Your task to perform on an android device: turn off priority inbox in the gmail app Image 0: 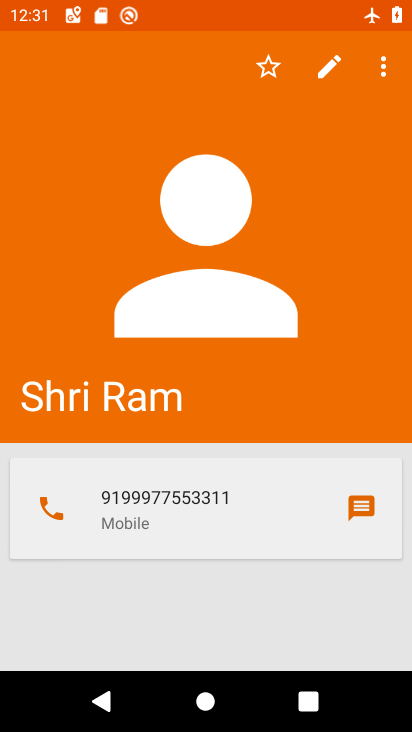
Step 0: press home button
Your task to perform on an android device: turn off priority inbox in the gmail app Image 1: 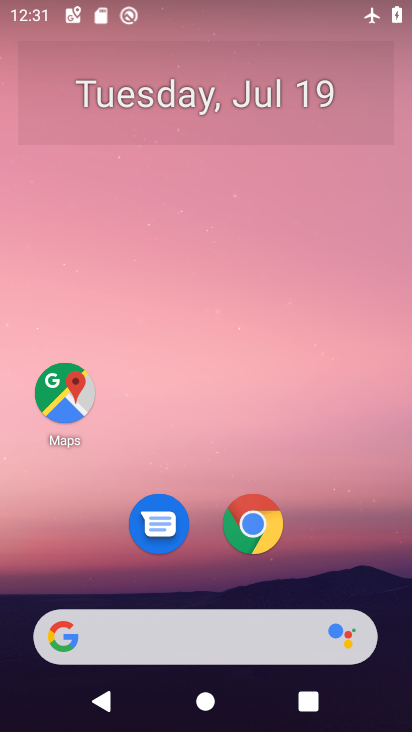
Step 1: drag from (319, 522) to (318, 15)
Your task to perform on an android device: turn off priority inbox in the gmail app Image 2: 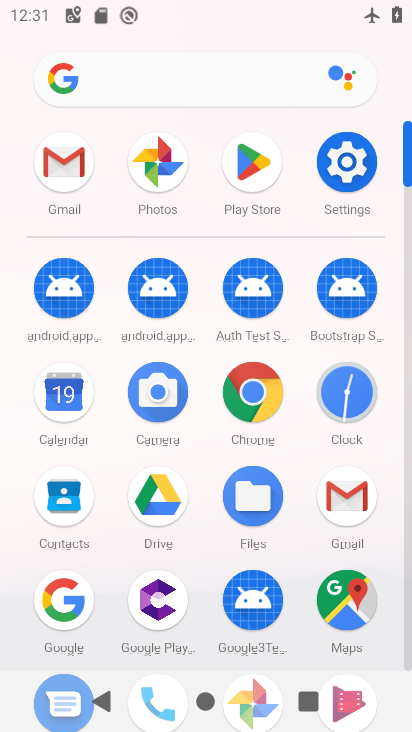
Step 2: click (75, 165)
Your task to perform on an android device: turn off priority inbox in the gmail app Image 3: 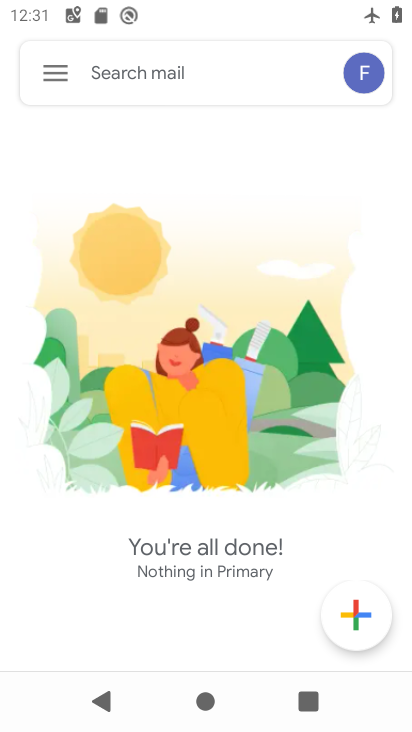
Step 3: click (59, 75)
Your task to perform on an android device: turn off priority inbox in the gmail app Image 4: 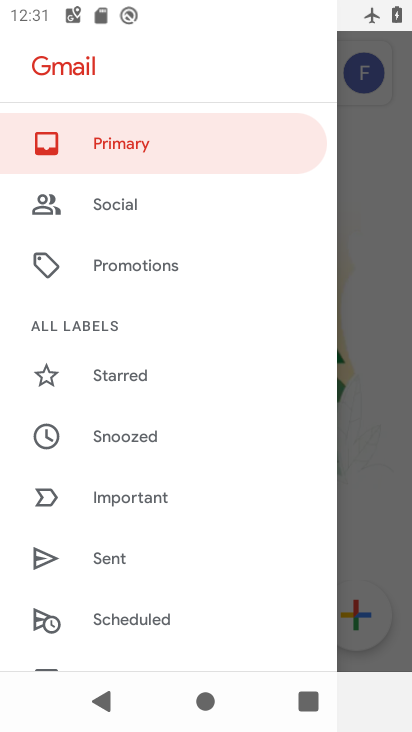
Step 4: drag from (149, 531) to (201, 16)
Your task to perform on an android device: turn off priority inbox in the gmail app Image 5: 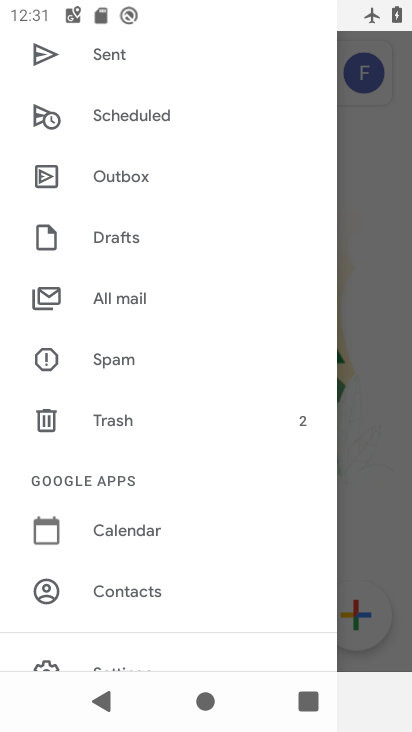
Step 5: drag from (211, 444) to (213, 139)
Your task to perform on an android device: turn off priority inbox in the gmail app Image 6: 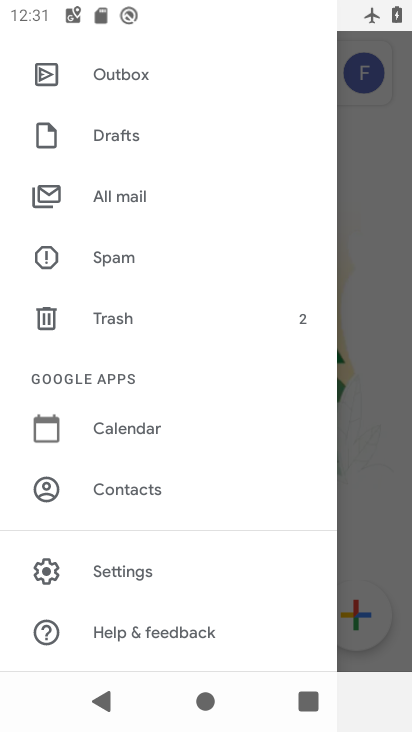
Step 6: click (130, 572)
Your task to perform on an android device: turn off priority inbox in the gmail app Image 7: 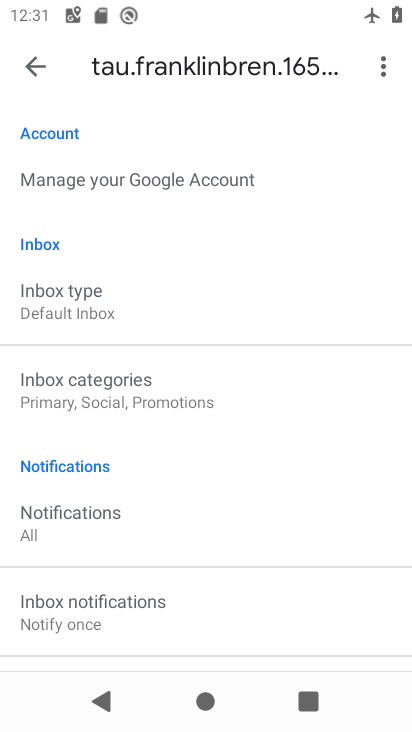
Step 7: click (78, 299)
Your task to perform on an android device: turn off priority inbox in the gmail app Image 8: 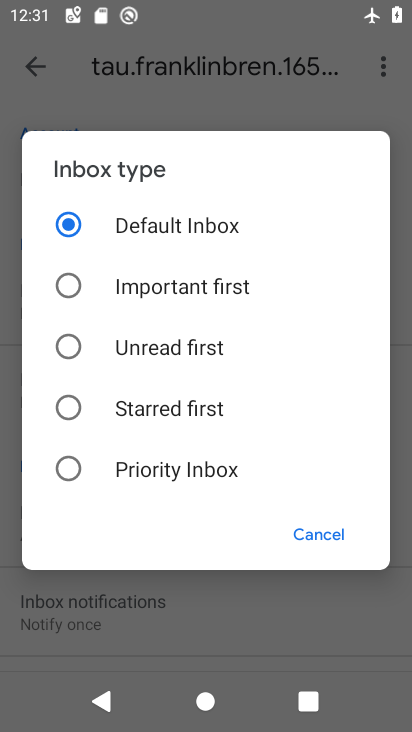
Step 8: click (73, 281)
Your task to perform on an android device: turn off priority inbox in the gmail app Image 9: 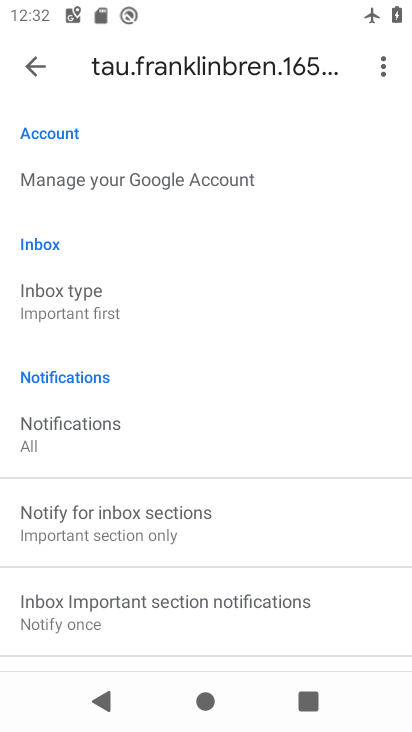
Step 9: task complete